Your task to perform on an android device: Open ESPN.com Image 0: 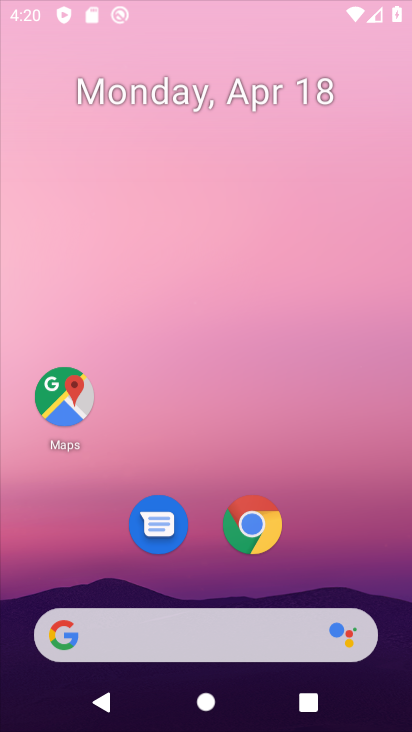
Step 0: click (249, 519)
Your task to perform on an android device: Open ESPN.com Image 1: 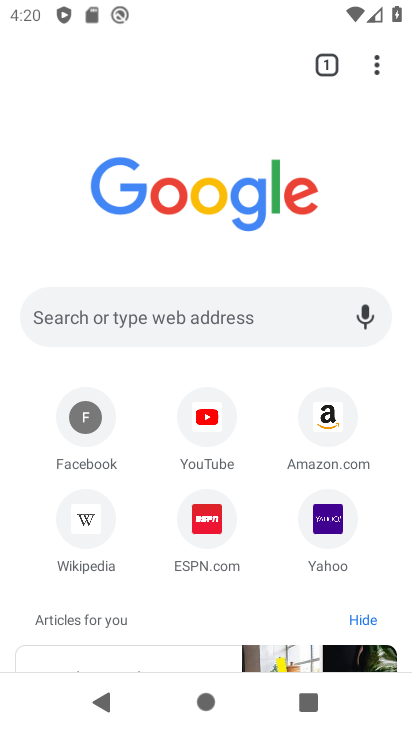
Step 1: press home button
Your task to perform on an android device: Open ESPN.com Image 2: 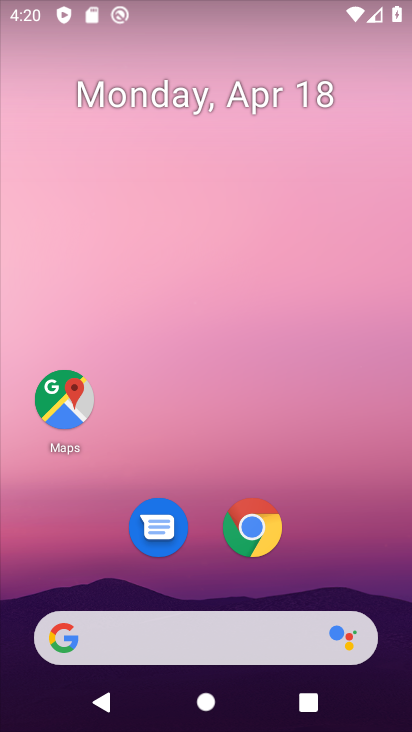
Step 2: click (248, 525)
Your task to perform on an android device: Open ESPN.com Image 3: 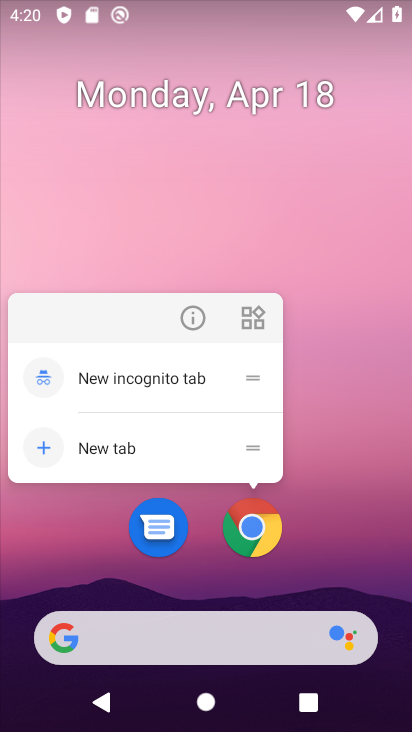
Step 3: click (256, 525)
Your task to perform on an android device: Open ESPN.com Image 4: 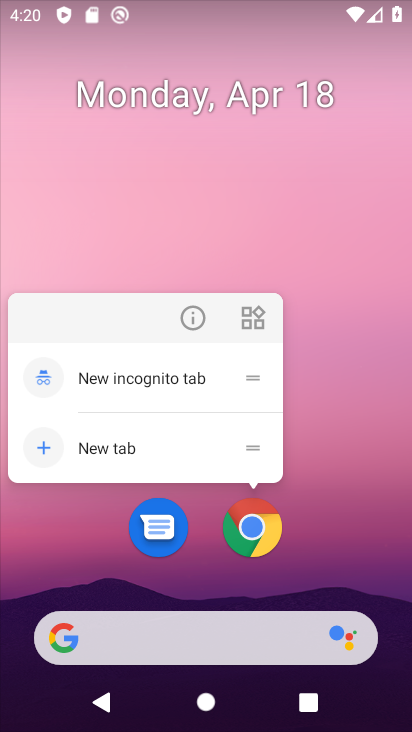
Step 4: click (256, 525)
Your task to perform on an android device: Open ESPN.com Image 5: 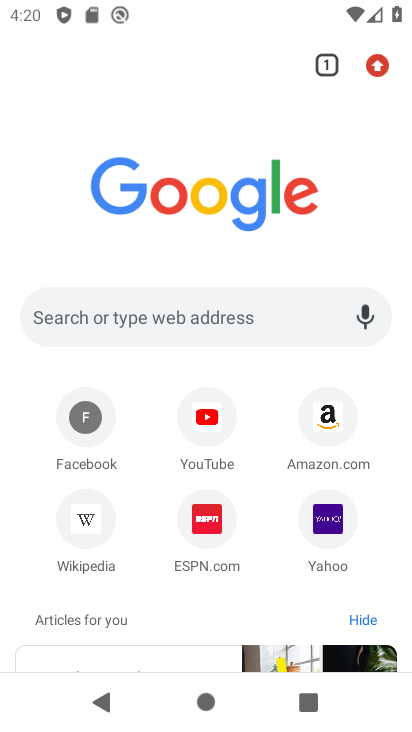
Step 5: click (152, 302)
Your task to perform on an android device: Open ESPN.com Image 6: 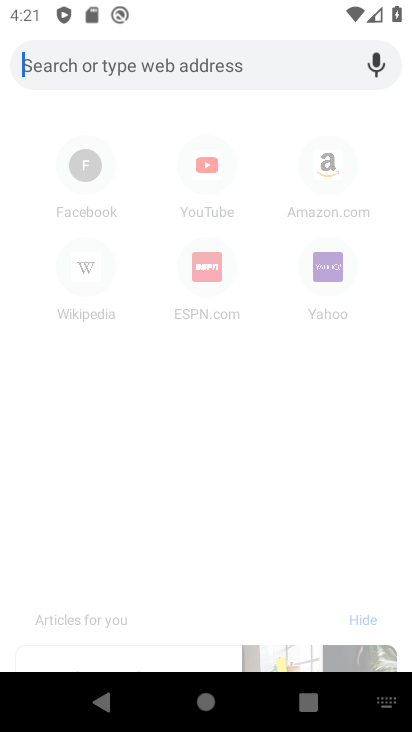
Step 6: type "espn.com"
Your task to perform on an android device: Open ESPN.com Image 7: 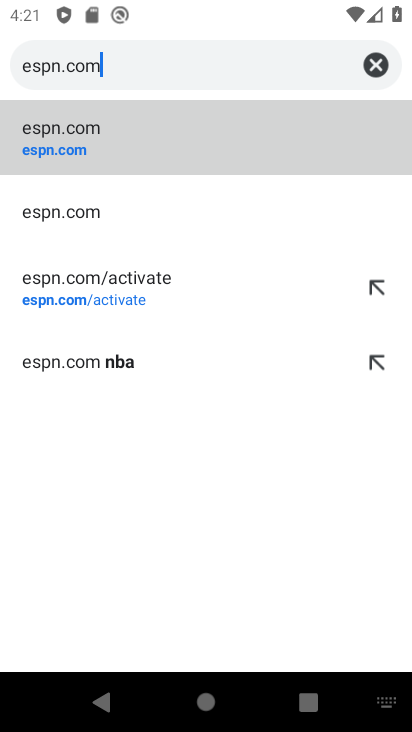
Step 7: type ""
Your task to perform on an android device: Open ESPN.com Image 8: 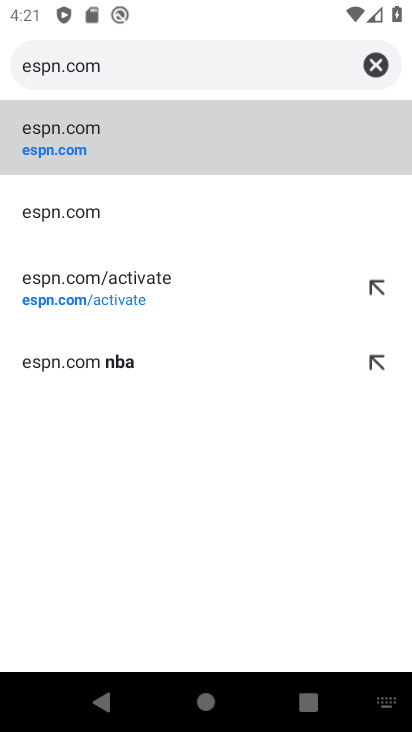
Step 8: click (112, 145)
Your task to perform on an android device: Open ESPN.com Image 9: 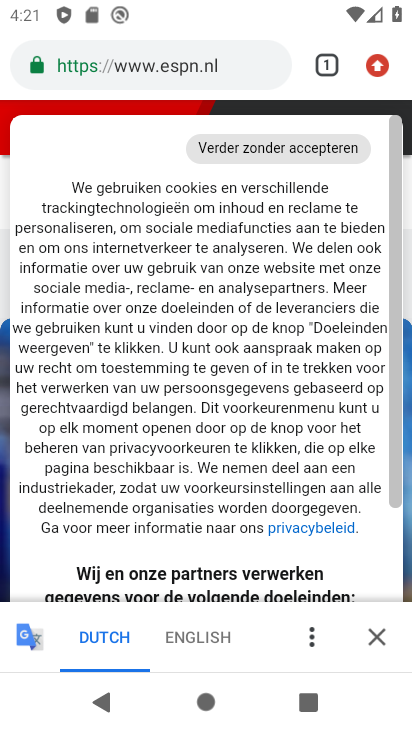
Step 9: click (377, 640)
Your task to perform on an android device: Open ESPN.com Image 10: 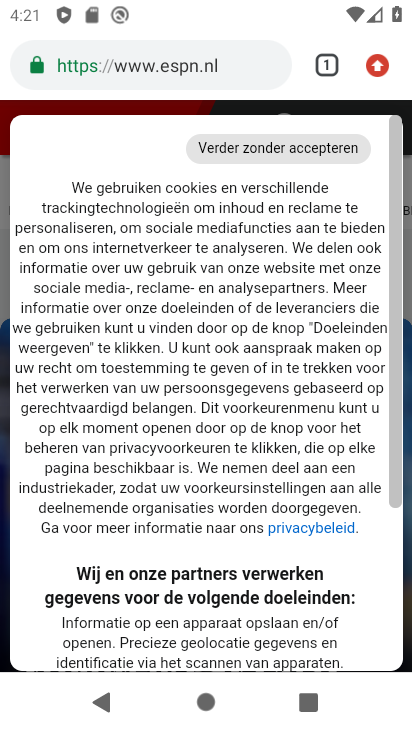
Step 10: drag from (246, 620) to (298, 218)
Your task to perform on an android device: Open ESPN.com Image 11: 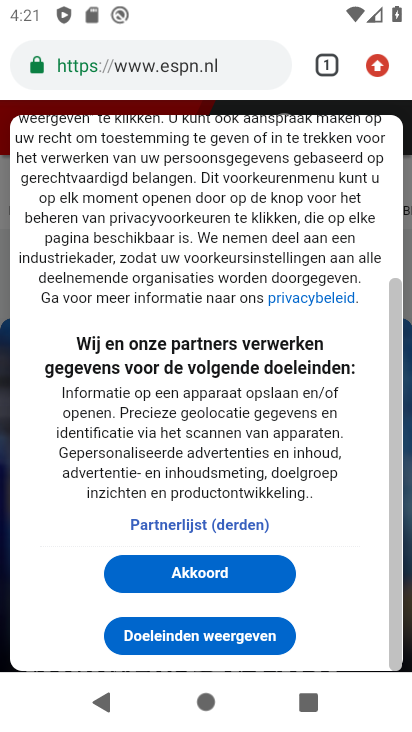
Step 11: click (204, 573)
Your task to perform on an android device: Open ESPN.com Image 12: 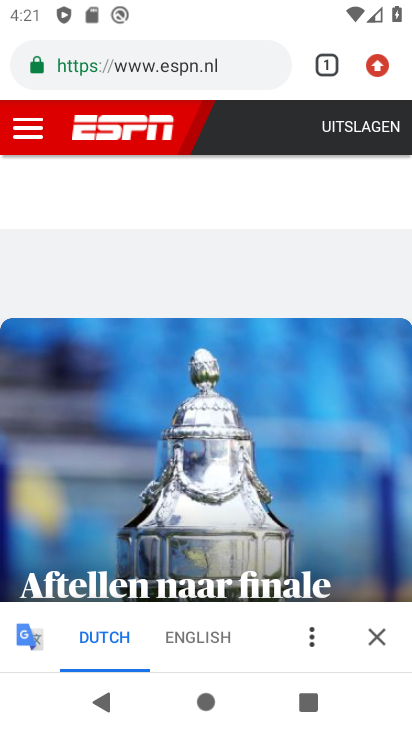
Step 12: drag from (203, 614) to (244, 109)
Your task to perform on an android device: Open ESPN.com Image 13: 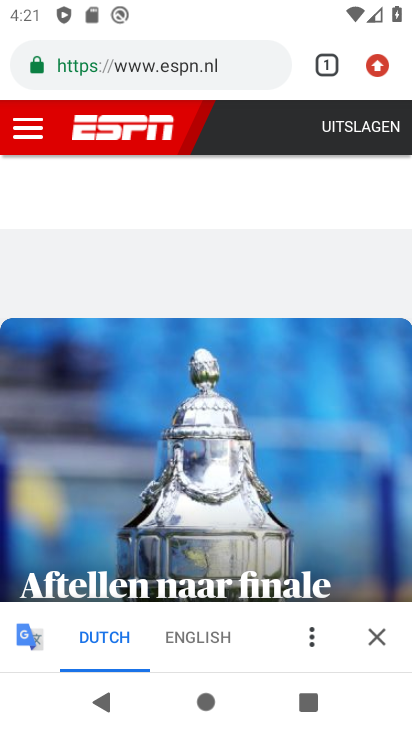
Step 13: click (372, 639)
Your task to perform on an android device: Open ESPN.com Image 14: 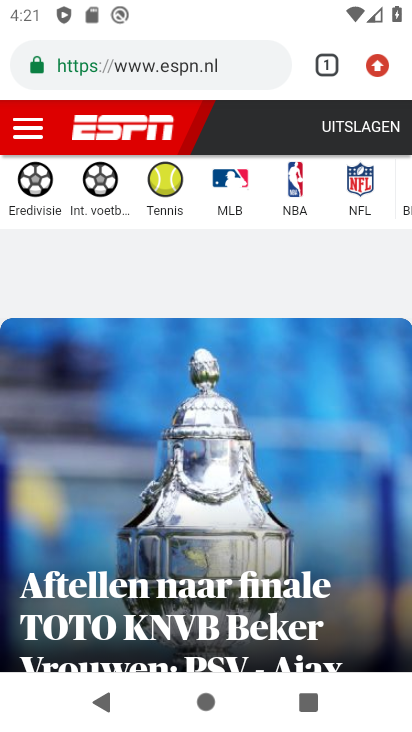
Step 14: task complete